Your task to perform on an android device: Open the Play Movies app and select the watchlist tab. Image 0: 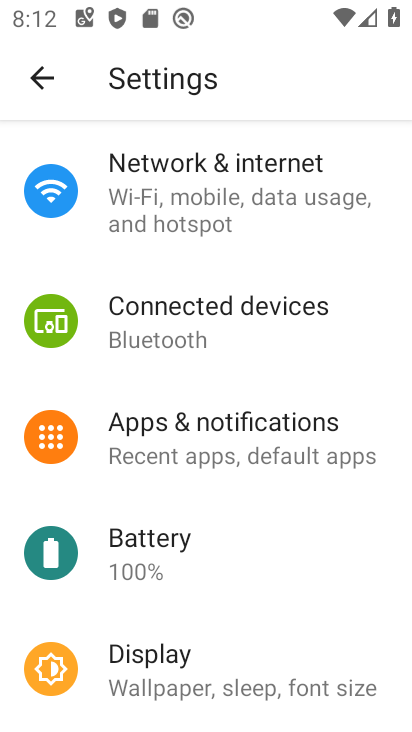
Step 0: press home button
Your task to perform on an android device: Open the Play Movies app and select the watchlist tab. Image 1: 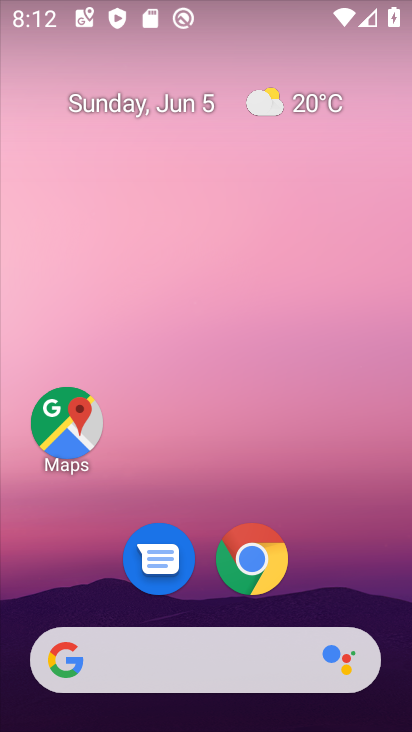
Step 1: drag from (315, 598) to (293, 227)
Your task to perform on an android device: Open the Play Movies app and select the watchlist tab. Image 2: 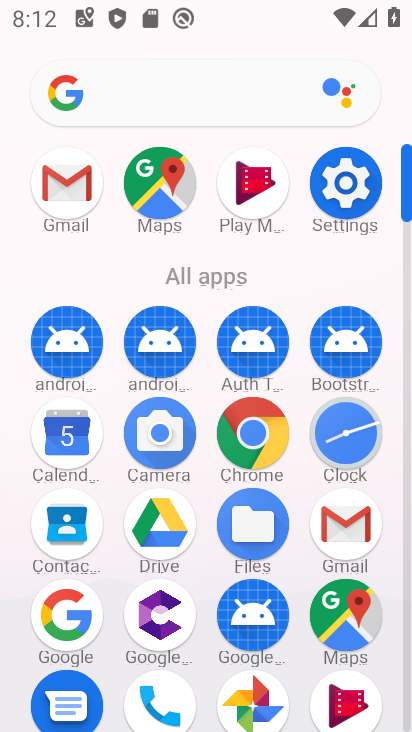
Step 2: drag from (309, 642) to (291, 447)
Your task to perform on an android device: Open the Play Movies app and select the watchlist tab. Image 3: 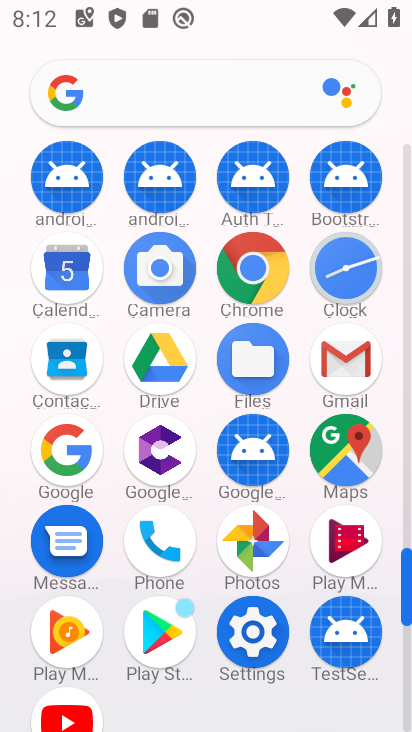
Step 3: click (342, 538)
Your task to perform on an android device: Open the Play Movies app and select the watchlist tab. Image 4: 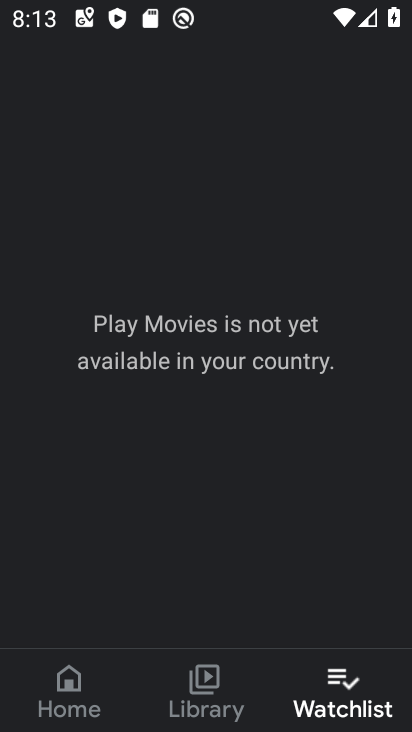
Step 4: task complete